Your task to perform on an android device: Open the calendar and show me this week's events? Image 0: 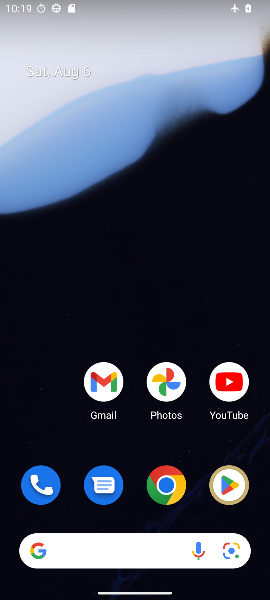
Step 0: drag from (188, 501) to (109, 31)
Your task to perform on an android device: Open the calendar and show me this week's events? Image 1: 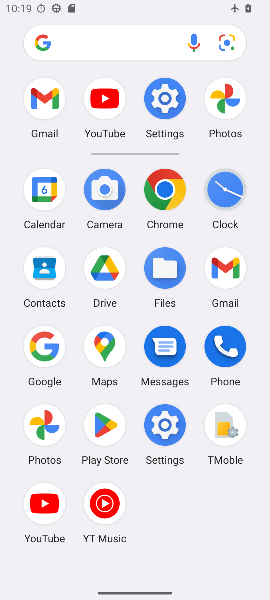
Step 1: drag from (120, 68) to (152, 487)
Your task to perform on an android device: Open the calendar and show me this week's events? Image 2: 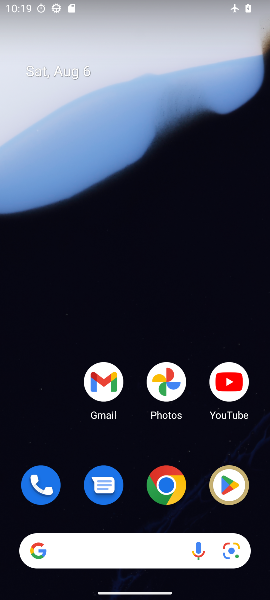
Step 2: drag from (137, 444) to (165, 79)
Your task to perform on an android device: Open the calendar and show me this week's events? Image 3: 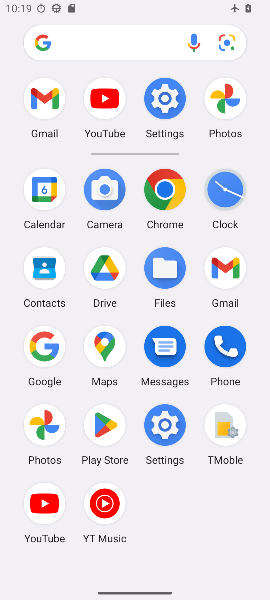
Step 3: click (45, 192)
Your task to perform on an android device: Open the calendar and show me this week's events? Image 4: 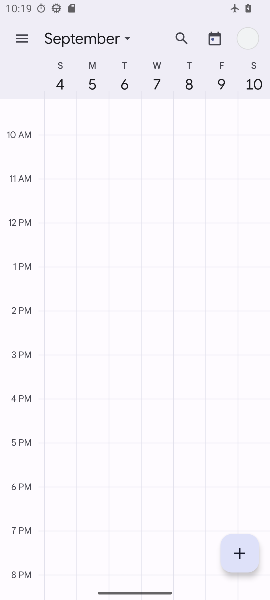
Step 4: click (71, 38)
Your task to perform on an android device: Open the calendar and show me this week's events? Image 5: 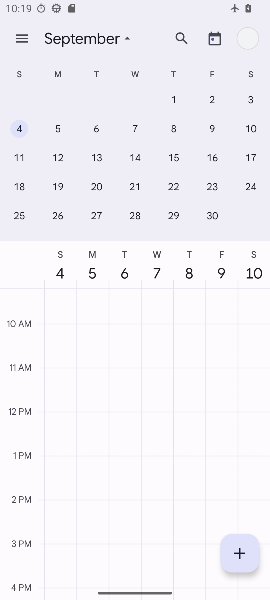
Step 5: drag from (44, 183) to (269, 162)
Your task to perform on an android device: Open the calendar and show me this week's events? Image 6: 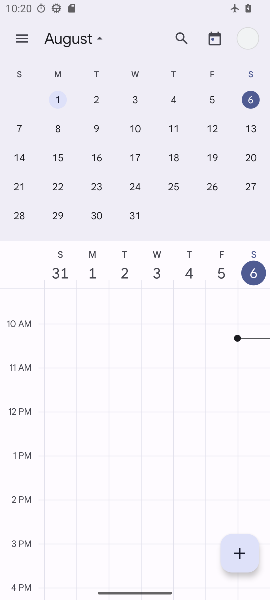
Step 6: click (19, 35)
Your task to perform on an android device: Open the calendar and show me this week's events? Image 7: 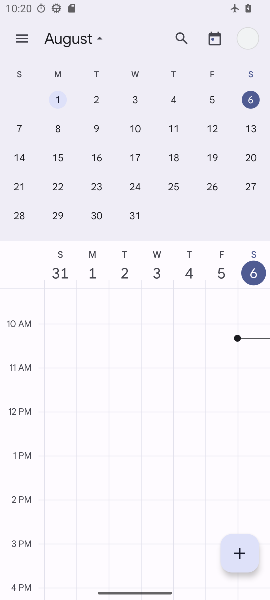
Step 7: click (22, 39)
Your task to perform on an android device: Open the calendar and show me this week's events? Image 8: 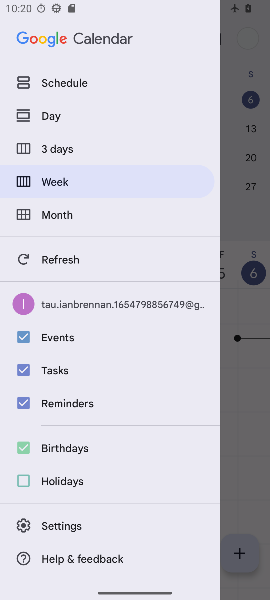
Step 8: click (57, 175)
Your task to perform on an android device: Open the calendar and show me this week's events? Image 9: 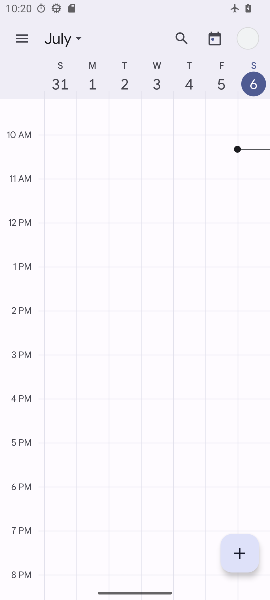
Step 9: task complete